Your task to perform on an android device: find which apps use the phone's location Image 0: 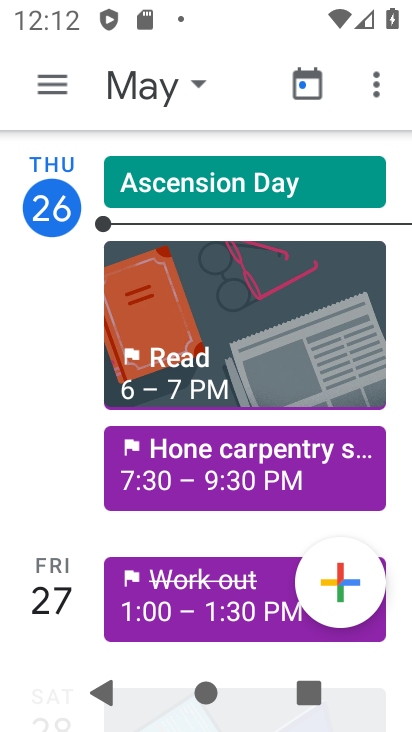
Step 0: press home button
Your task to perform on an android device: find which apps use the phone's location Image 1: 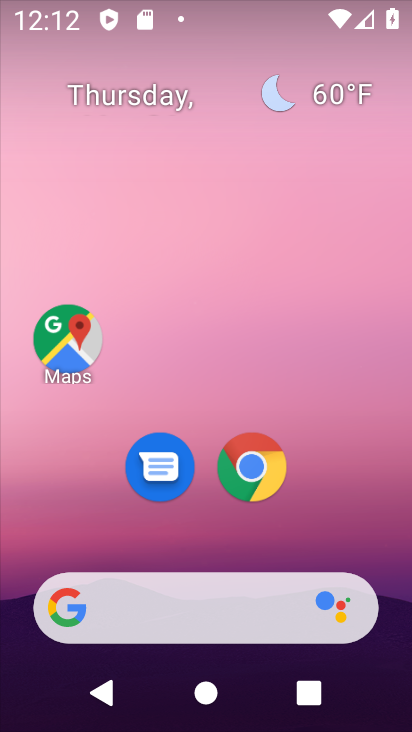
Step 1: drag from (221, 544) to (230, 88)
Your task to perform on an android device: find which apps use the phone's location Image 2: 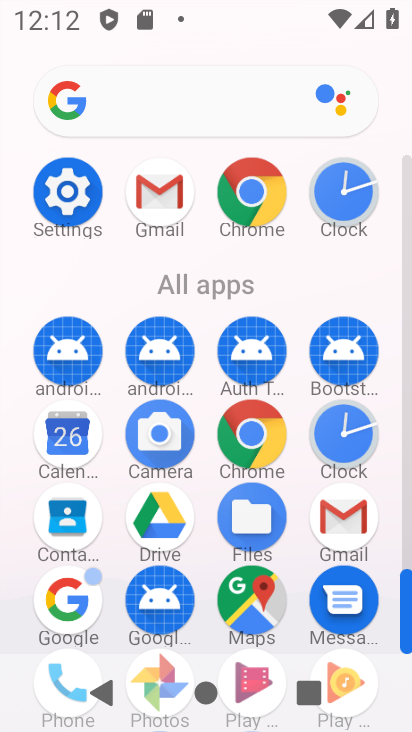
Step 2: drag from (212, 537) to (217, 229)
Your task to perform on an android device: find which apps use the phone's location Image 3: 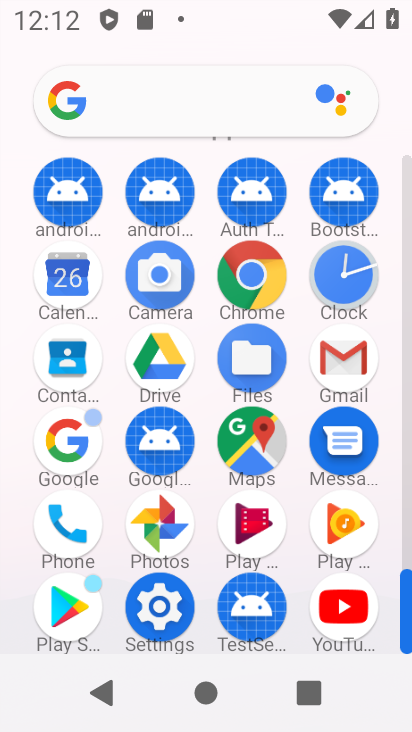
Step 3: click (163, 616)
Your task to perform on an android device: find which apps use the phone's location Image 4: 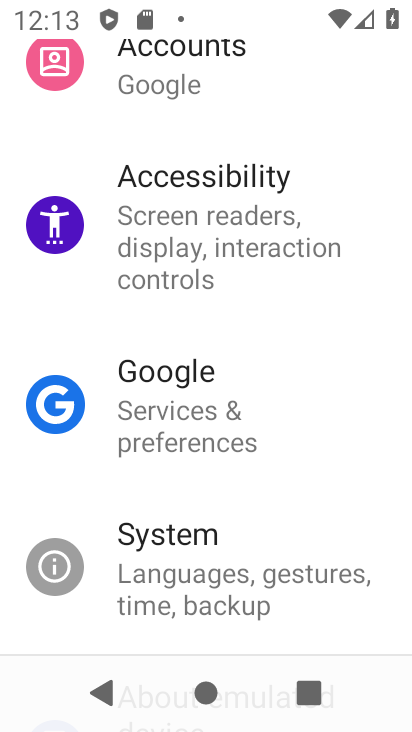
Step 4: drag from (213, 573) to (239, 720)
Your task to perform on an android device: find which apps use the phone's location Image 5: 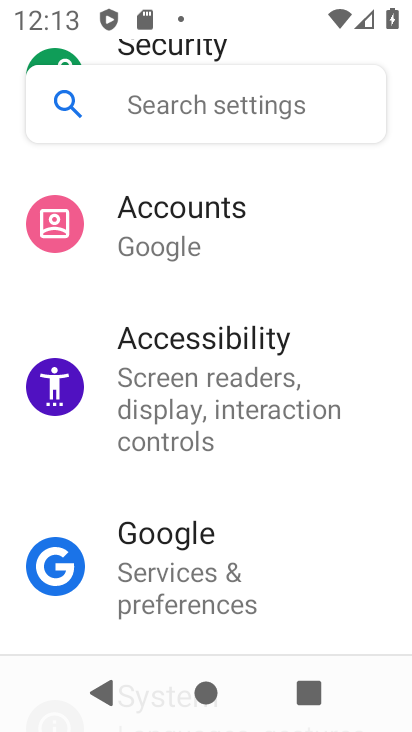
Step 5: drag from (272, 287) to (259, 727)
Your task to perform on an android device: find which apps use the phone's location Image 6: 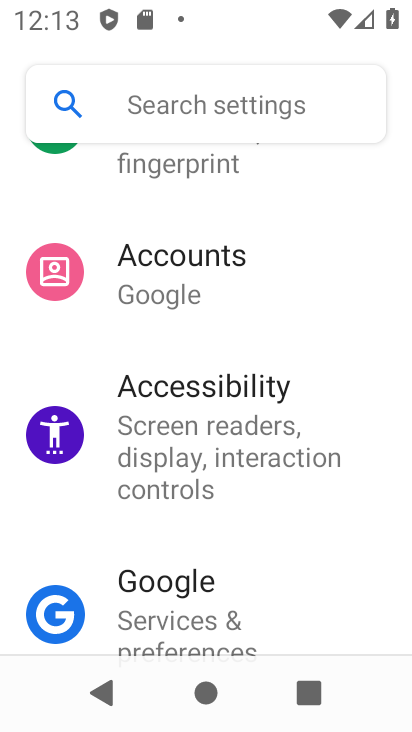
Step 6: drag from (276, 371) to (261, 663)
Your task to perform on an android device: find which apps use the phone's location Image 7: 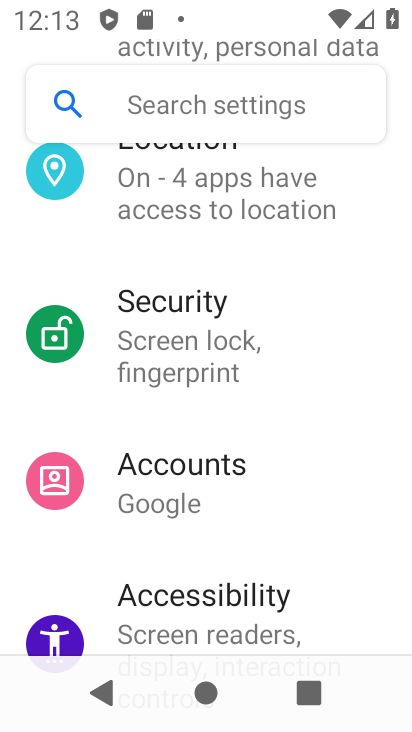
Step 7: click (244, 190)
Your task to perform on an android device: find which apps use the phone's location Image 8: 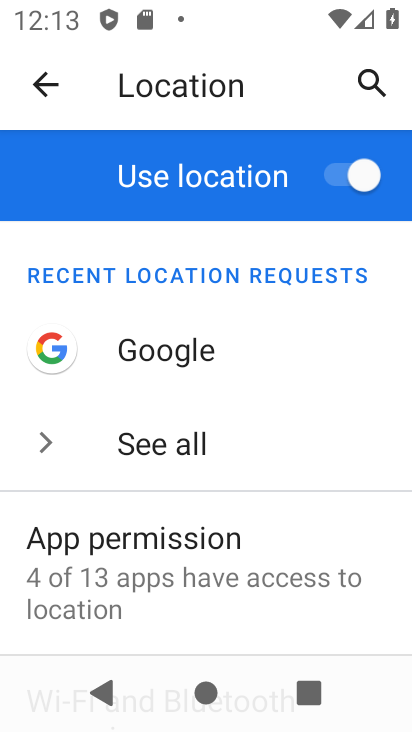
Step 8: drag from (266, 503) to (282, 323)
Your task to perform on an android device: find which apps use the phone's location Image 9: 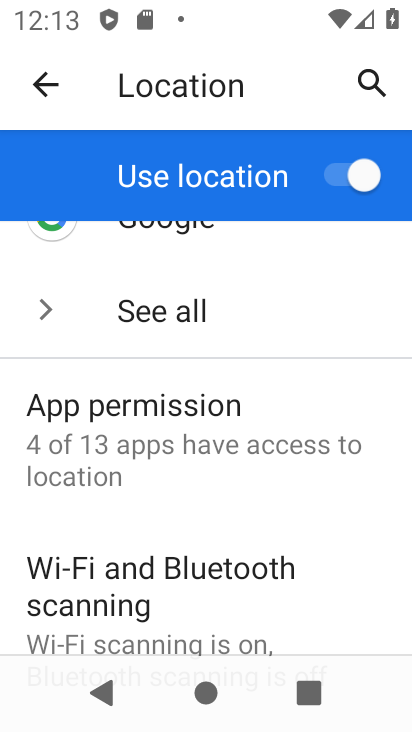
Step 9: click (149, 447)
Your task to perform on an android device: find which apps use the phone's location Image 10: 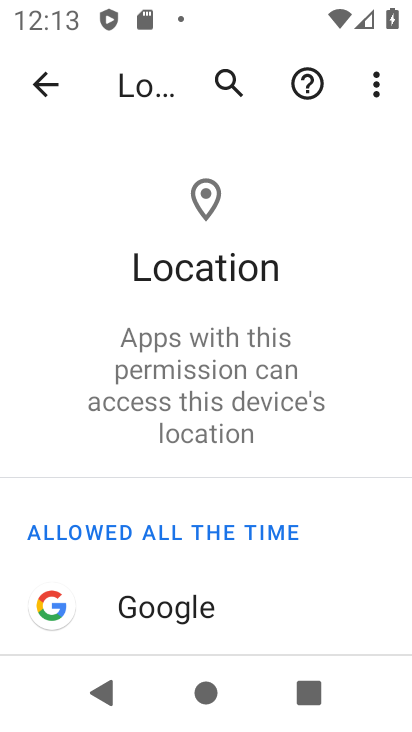
Step 10: task complete